Your task to perform on an android device: Open Chrome and go to settings Image 0: 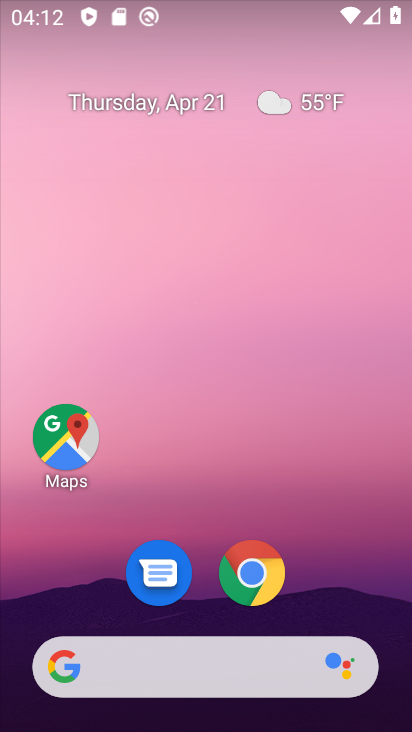
Step 0: drag from (337, 606) to (294, 206)
Your task to perform on an android device: Open Chrome and go to settings Image 1: 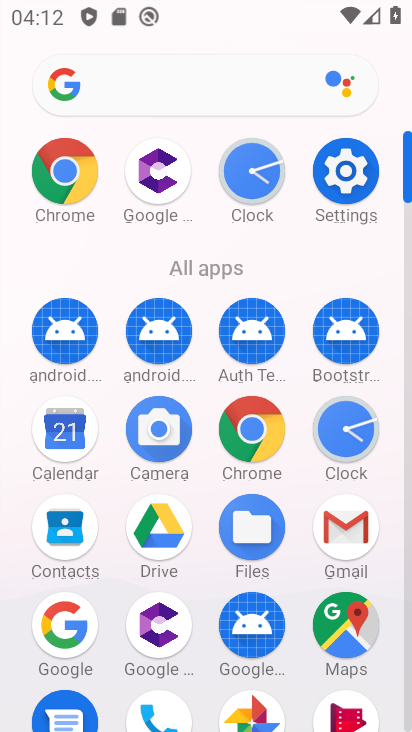
Step 1: click (257, 449)
Your task to perform on an android device: Open Chrome and go to settings Image 2: 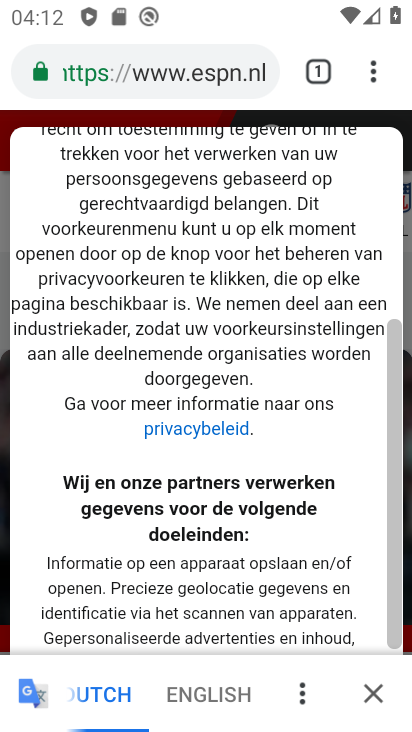
Step 2: drag from (376, 63) to (149, 567)
Your task to perform on an android device: Open Chrome and go to settings Image 3: 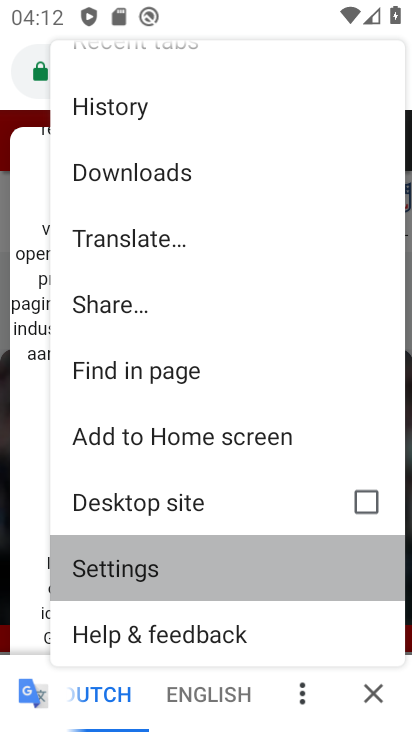
Step 3: click (149, 567)
Your task to perform on an android device: Open Chrome and go to settings Image 4: 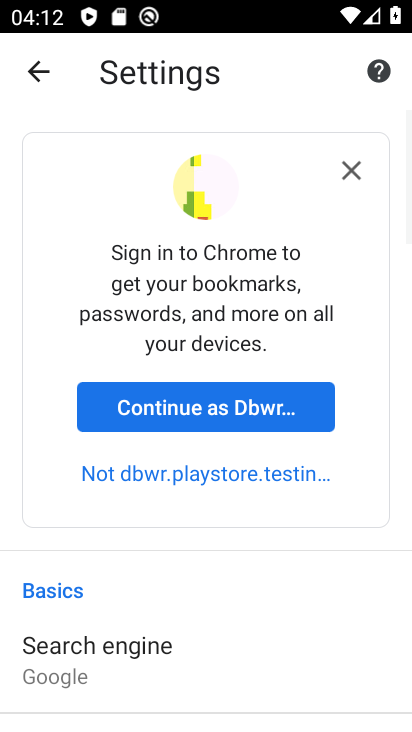
Step 4: task complete